Your task to perform on an android device: change text size in settings app Image 0: 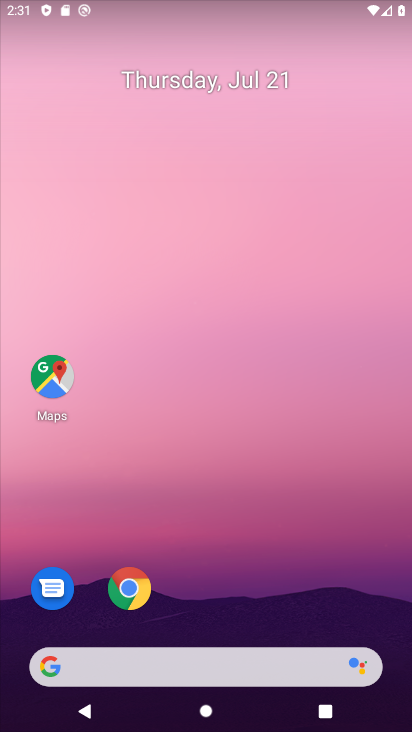
Step 0: drag from (195, 657) to (213, 190)
Your task to perform on an android device: change text size in settings app Image 1: 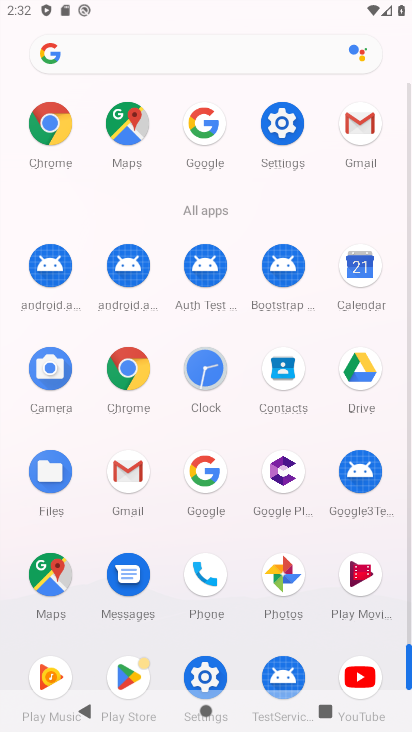
Step 1: click (293, 170)
Your task to perform on an android device: change text size in settings app Image 2: 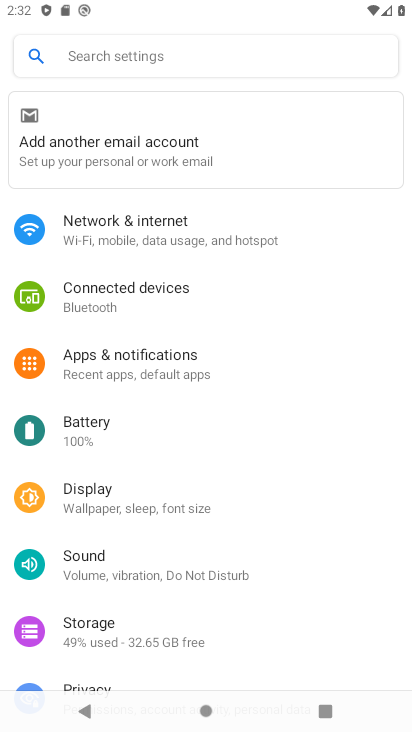
Step 2: click (147, 509)
Your task to perform on an android device: change text size in settings app Image 3: 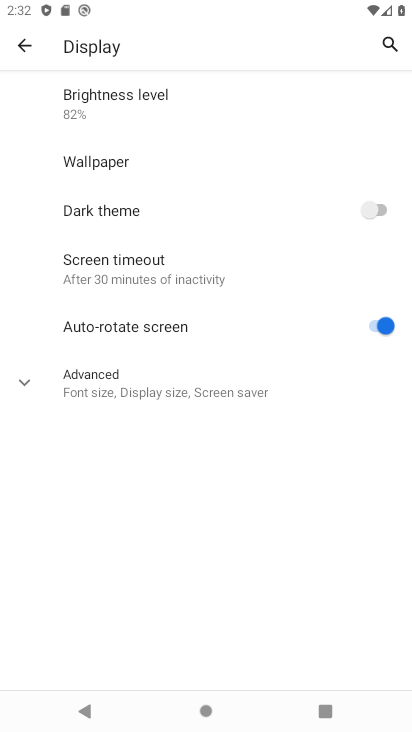
Step 3: click (105, 341)
Your task to perform on an android device: change text size in settings app Image 4: 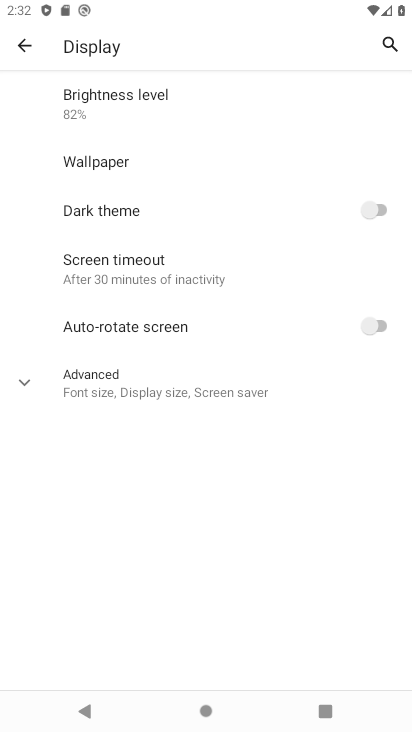
Step 4: click (108, 395)
Your task to perform on an android device: change text size in settings app Image 5: 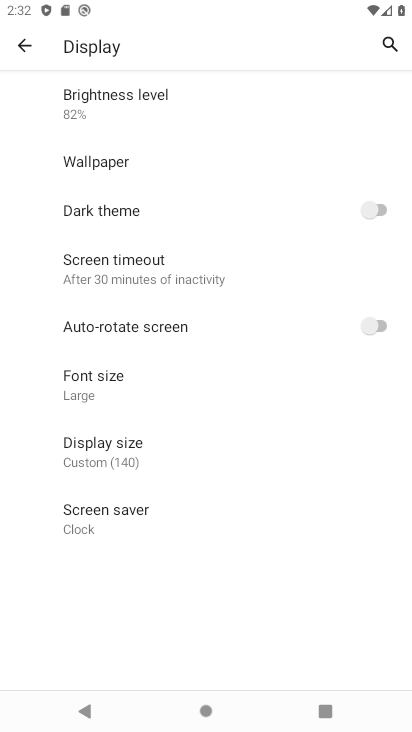
Step 5: click (164, 411)
Your task to perform on an android device: change text size in settings app Image 6: 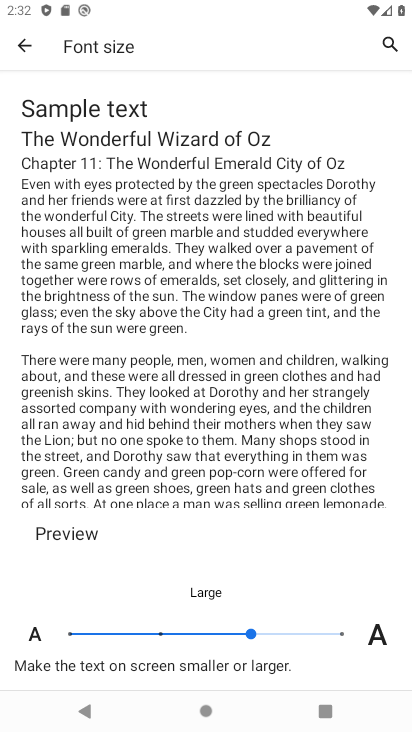
Step 6: task complete